Your task to perform on an android device: Go to notification settings Image 0: 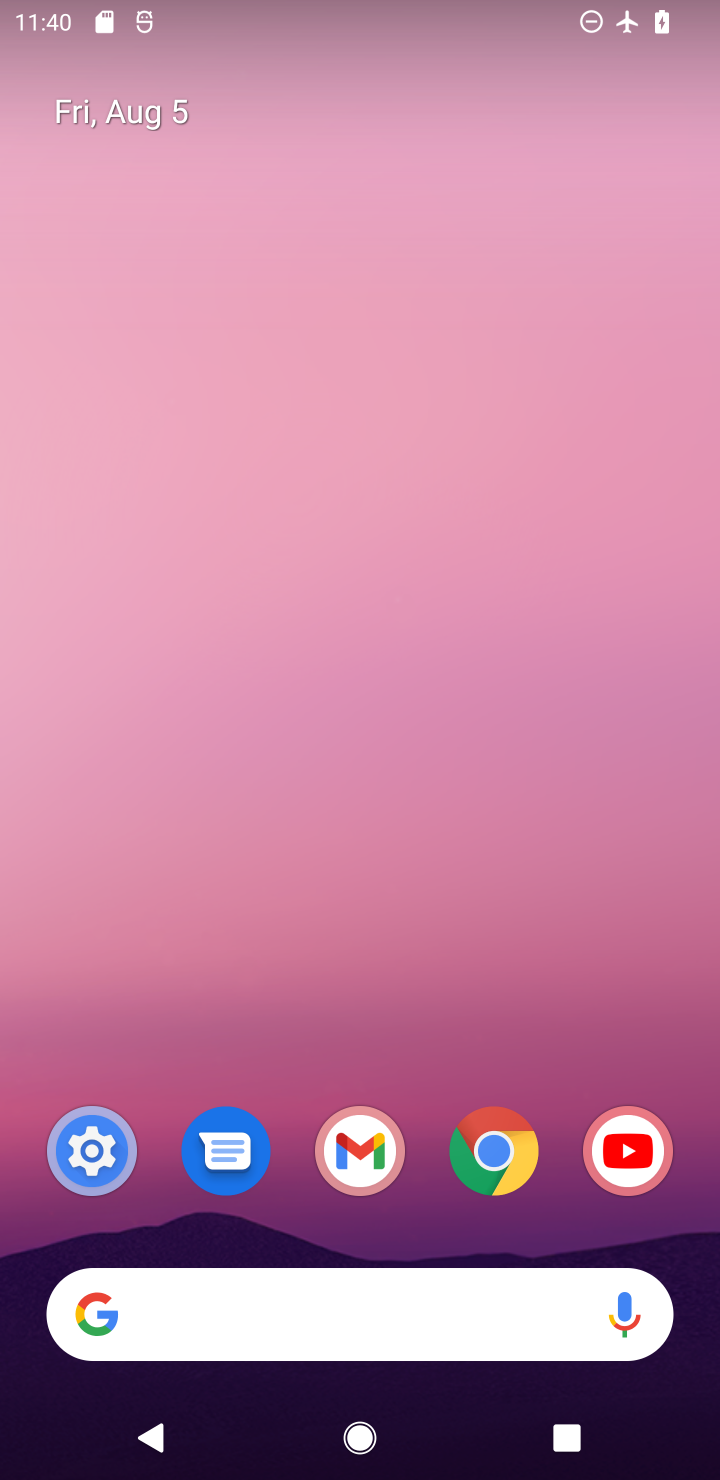
Step 0: click (73, 1175)
Your task to perform on an android device: Go to notification settings Image 1: 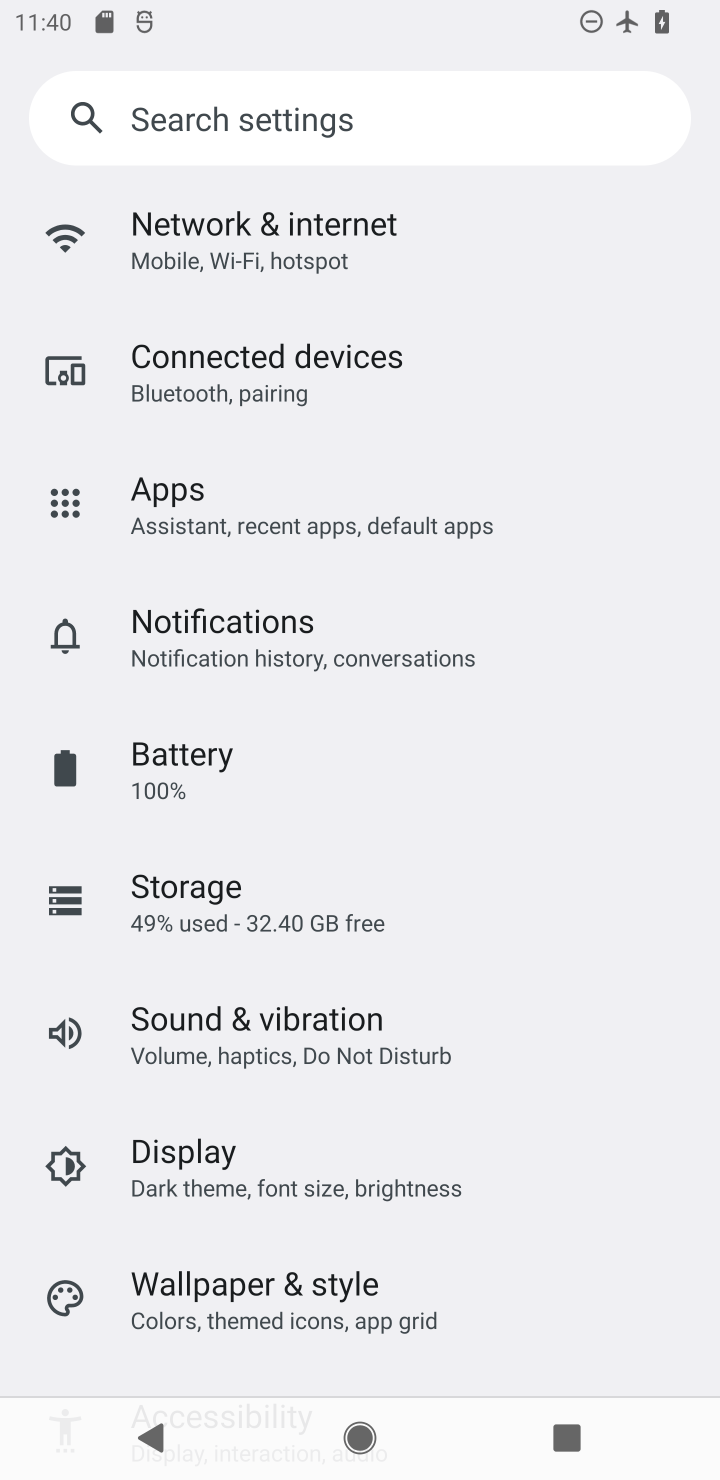
Step 1: click (241, 652)
Your task to perform on an android device: Go to notification settings Image 2: 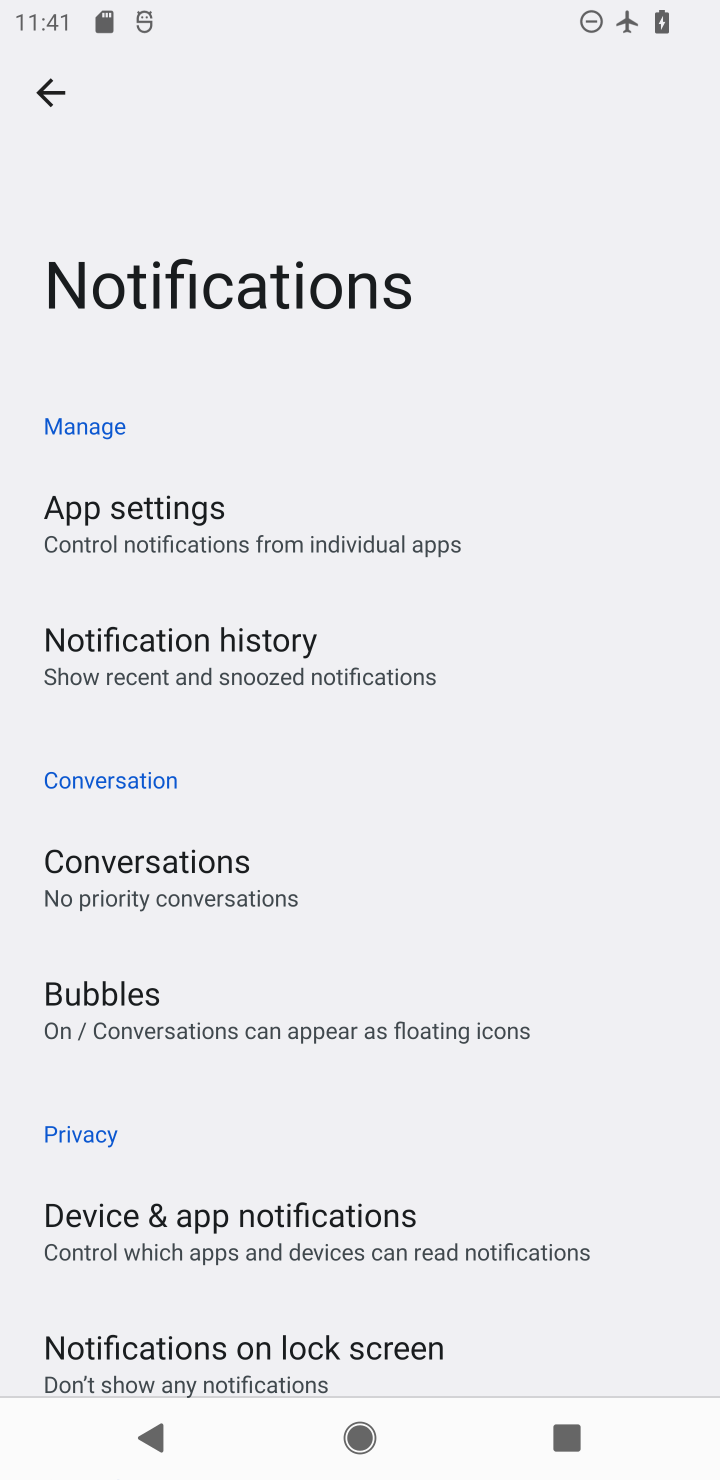
Step 2: task complete